Your task to perform on an android device: Go to notification settings Image 0: 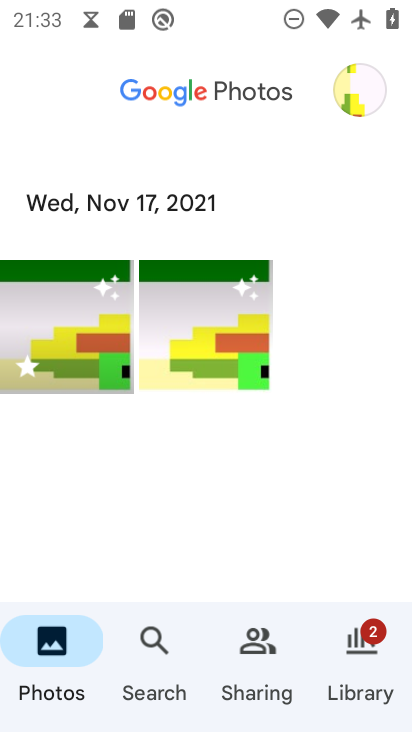
Step 0: press home button
Your task to perform on an android device: Go to notification settings Image 1: 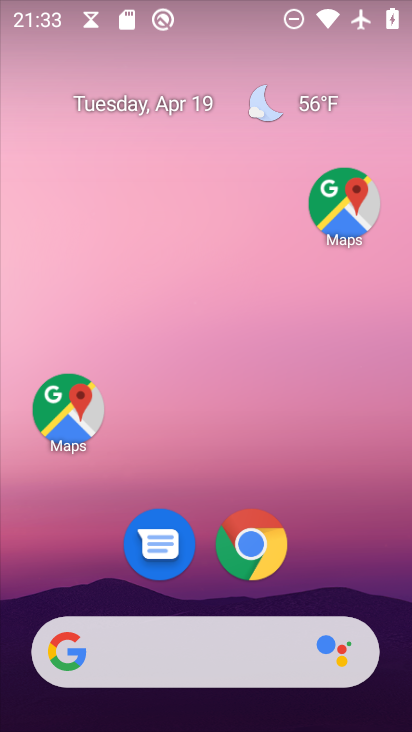
Step 1: drag from (135, 665) to (328, 187)
Your task to perform on an android device: Go to notification settings Image 2: 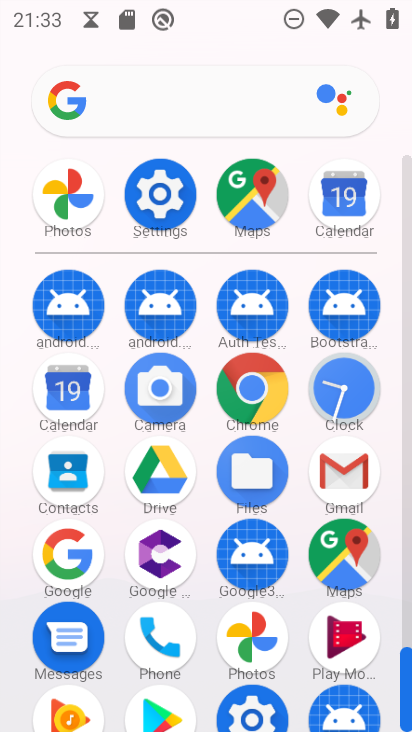
Step 2: click (165, 206)
Your task to perform on an android device: Go to notification settings Image 3: 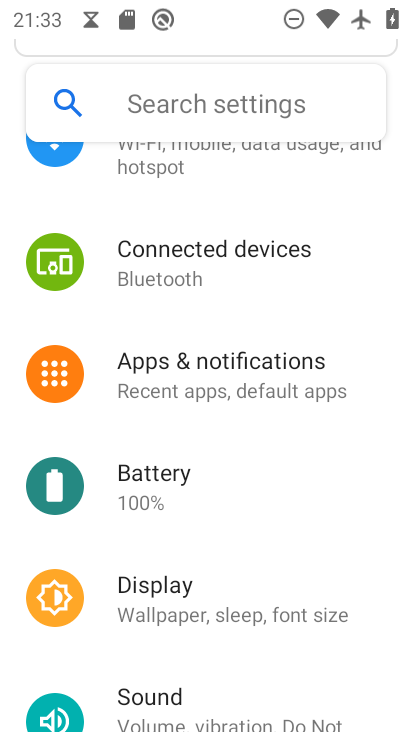
Step 3: click (214, 362)
Your task to perform on an android device: Go to notification settings Image 4: 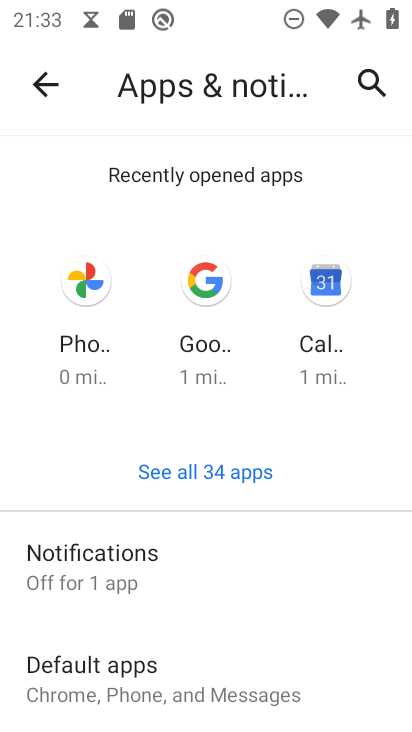
Step 4: click (113, 556)
Your task to perform on an android device: Go to notification settings Image 5: 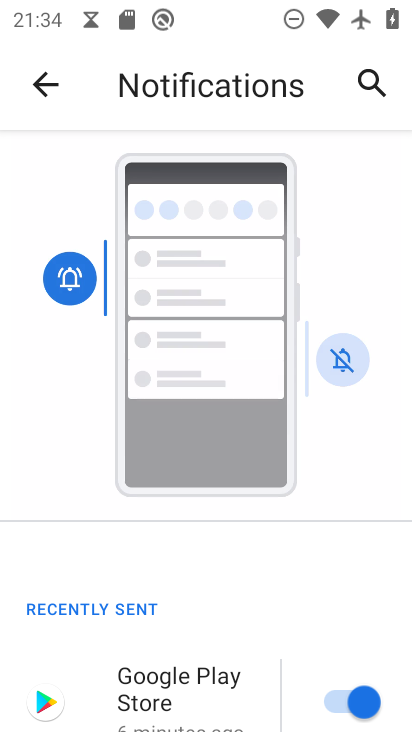
Step 5: task complete